Your task to perform on an android device: change your default location settings in chrome Image 0: 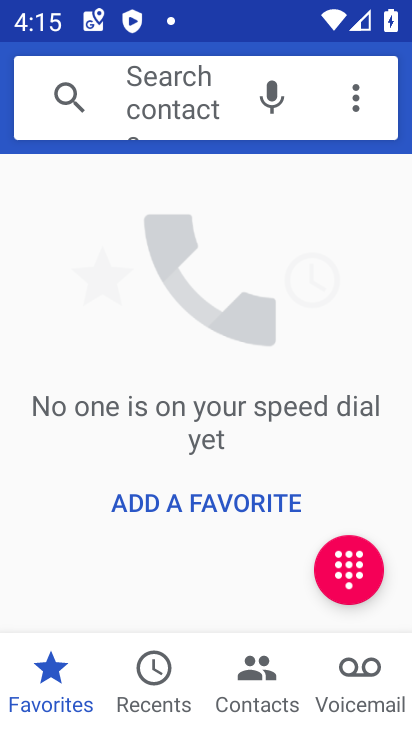
Step 0: press home button
Your task to perform on an android device: change your default location settings in chrome Image 1: 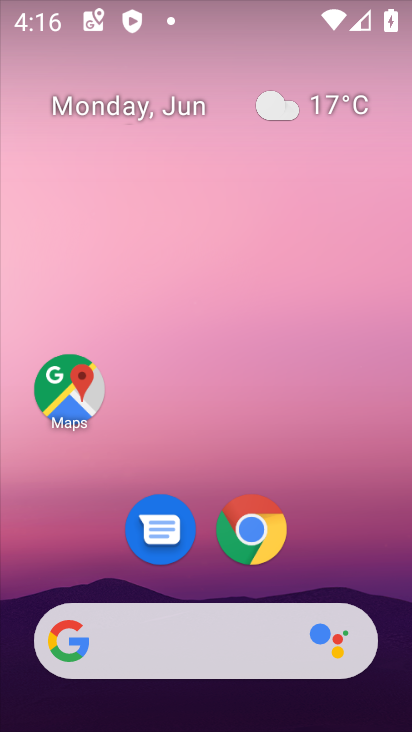
Step 1: click (253, 530)
Your task to perform on an android device: change your default location settings in chrome Image 2: 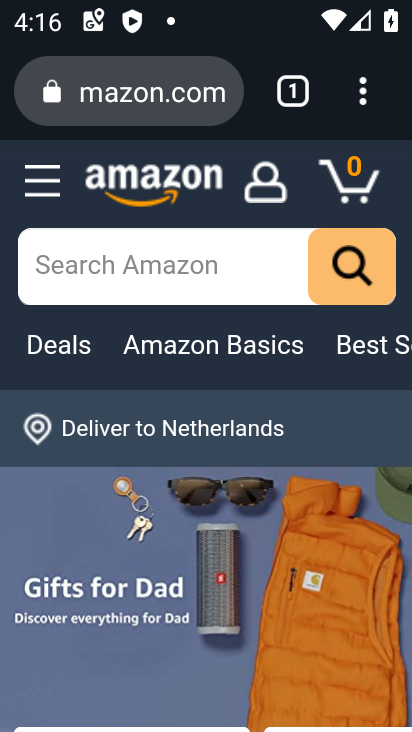
Step 2: click (362, 97)
Your task to perform on an android device: change your default location settings in chrome Image 3: 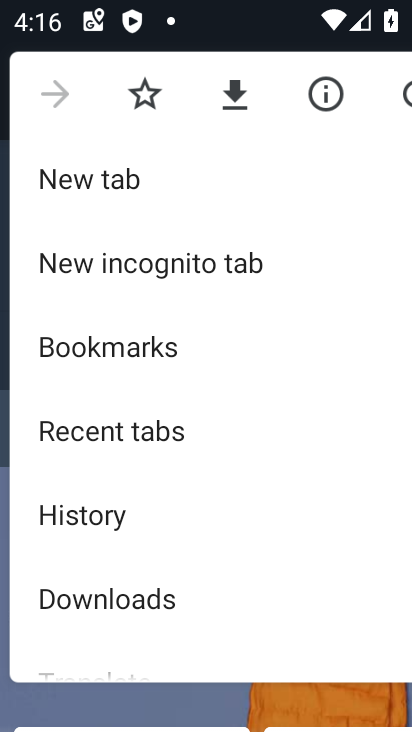
Step 3: drag from (167, 555) to (264, 227)
Your task to perform on an android device: change your default location settings in chrome Image 4: 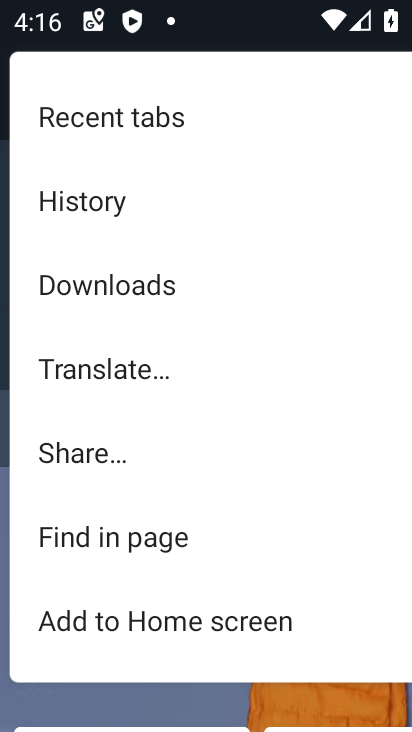
Step 4: drag from (198, 540) to (287, 193)
Your task to perform on an android device: change your default location settings in chrome Image 5: 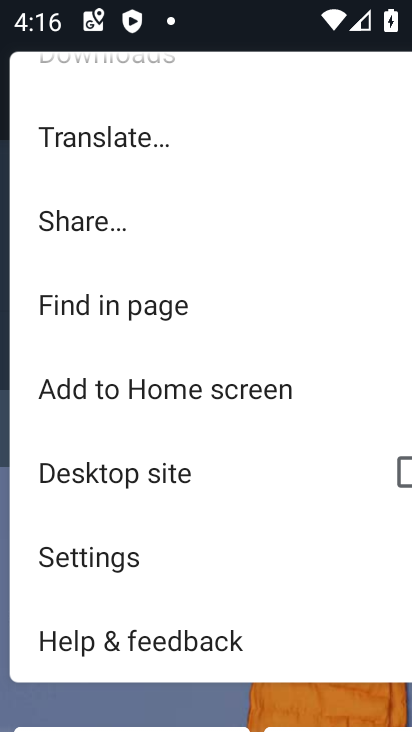
Step 5: click (108, 565)
Your task to perform on an android device: change your default location settings in chrome Image 6: 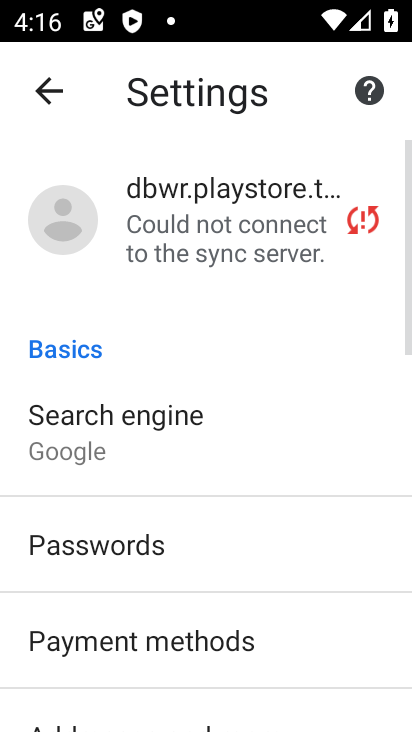
Step 6: drag from (184, 620) to (295, 279)
Your task to perform on an android device: change your default location settings in chrome Image 7: 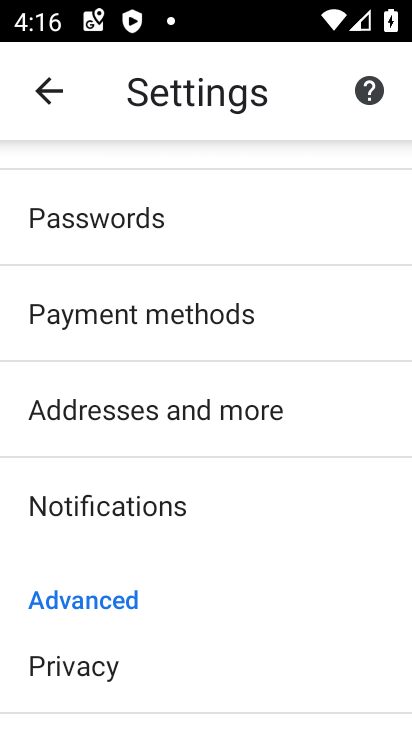
Step 7: drag from (207, 595) to (286, 322)
Your task to perform on an android device: change your default location settings in chrome Image 8: 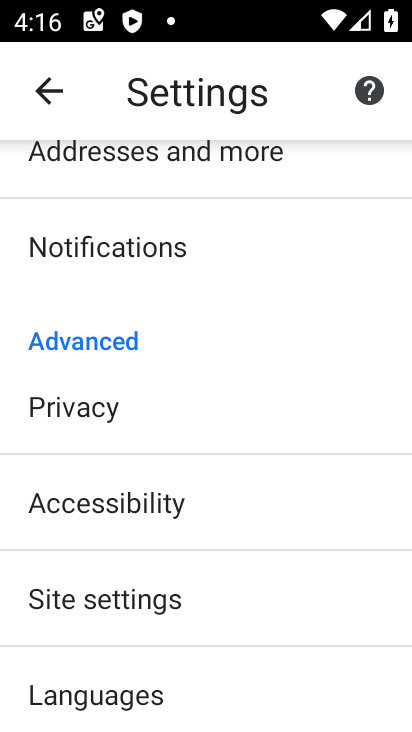
Step 8: click (110, 587)
Your task to perform on an android device: change your default location settings in chrome Image 9: 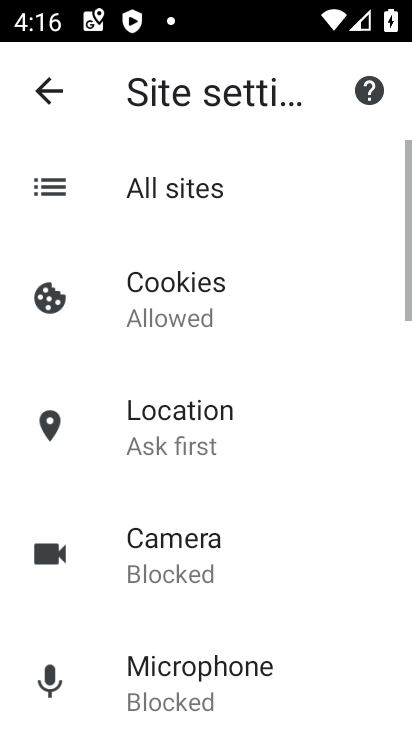
Step 9: click (208, 439)
Your task to perform on an android device: change your default location settings in chrome Image 10: 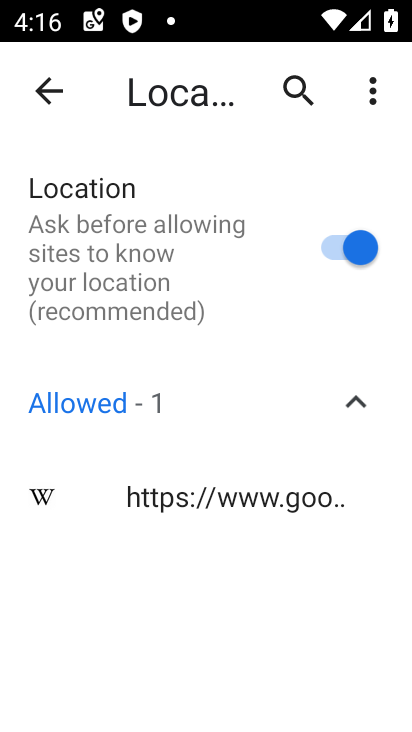
Step 10: click (349, 252)
Your task to perform on an android device: change your default location settings in chrome Image 11: 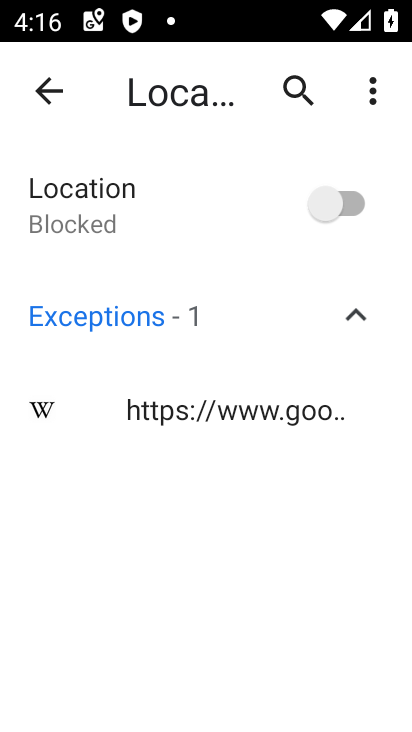
Step 11: task complete